Your task to perform on an android device: Open the calendar and show me this week's events? Image 0: 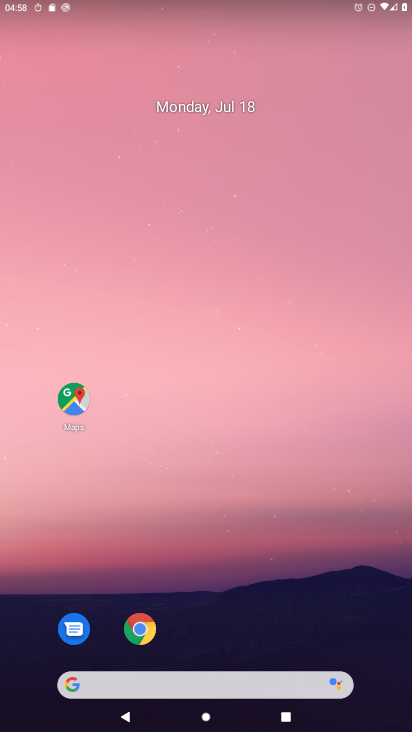
Step 0: drag from (210, 675) to (402, 337)
Your task to perform on an android device: Open the calendar and show me this week's events? Image 1: 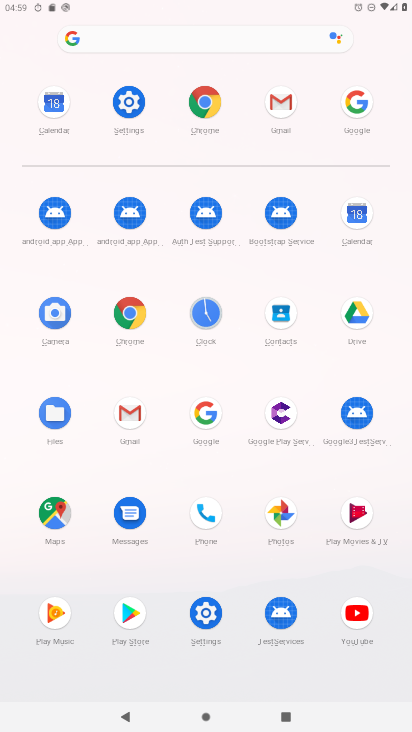
Step 1: click (357, 217)
Your task to perform on an android device: Open the calendar and show me this week's events? Image 2: 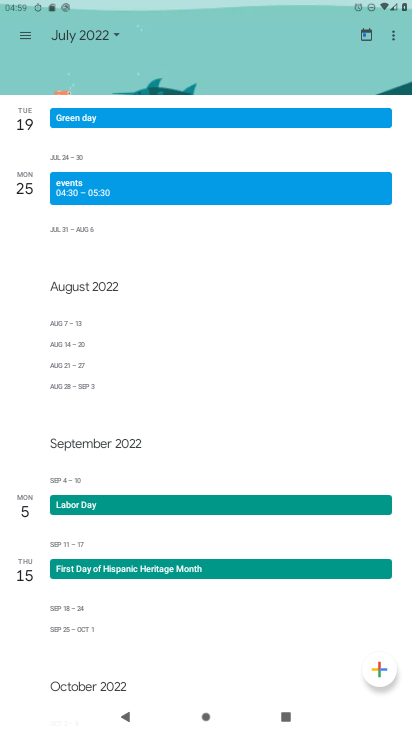
Step 2: click (369, 39)
Your task to perform on an android device: Open the calendar and show me this week's events? Image 3: 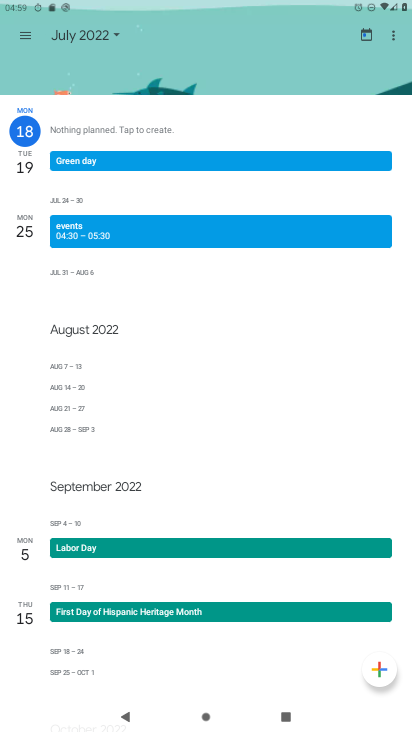
Step 3: click (114, 33)
Your task to perform on an android device: Open the calendar and show me this week's events? Image 4: 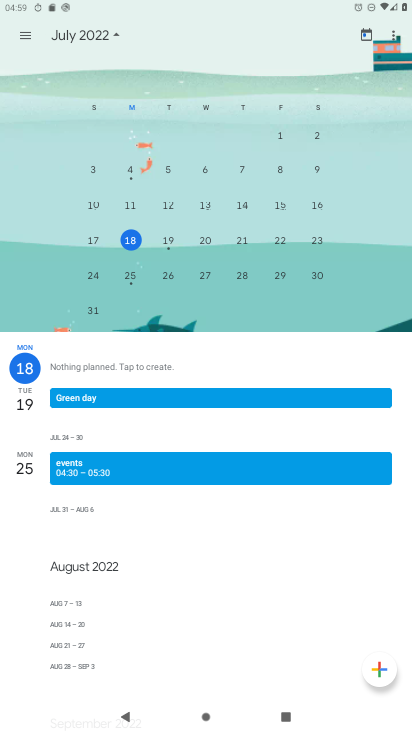
Step 4: click (171, 244)
Your task to perform on an android device: Open the calendar and show me this week's events? Image 5: 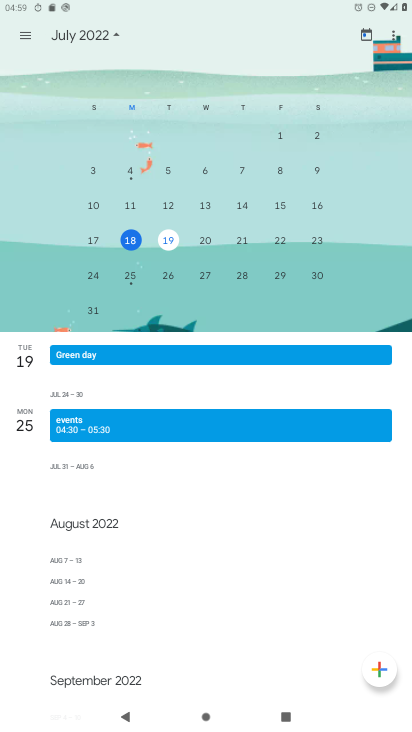
Step 5: click (33, 32)
Your task to perform on an android device: Open the calendar and show me this week's events? Image 6: 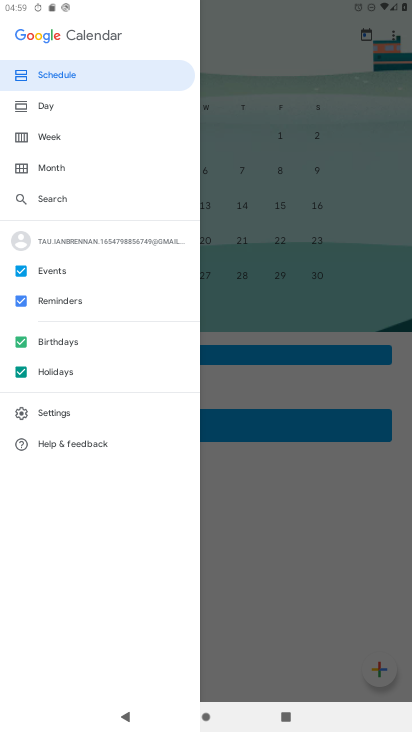
Step 6: click (54, 75)
Your task to perform on an android device: Open the calendar and show me this week's events? Image 7: 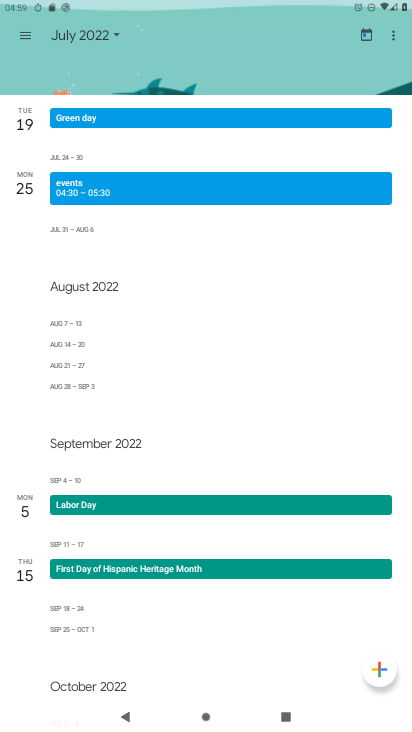
Step 7: task complete